Your task to perform on an android device: Open eBay Image 0: 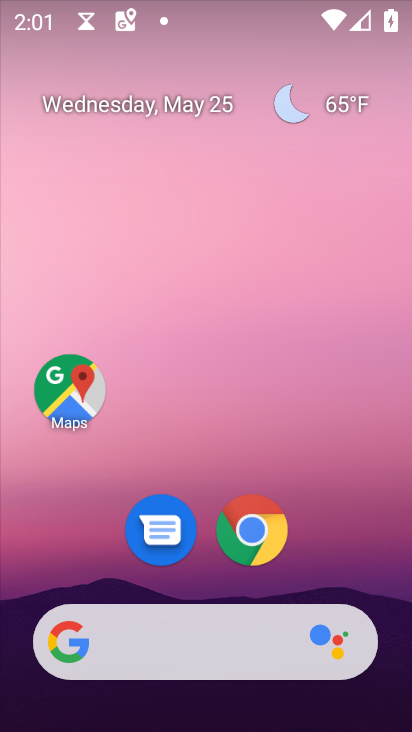
Step 0: click (267, 535)
Your task to perform on an android device: Open eBay Image 1: 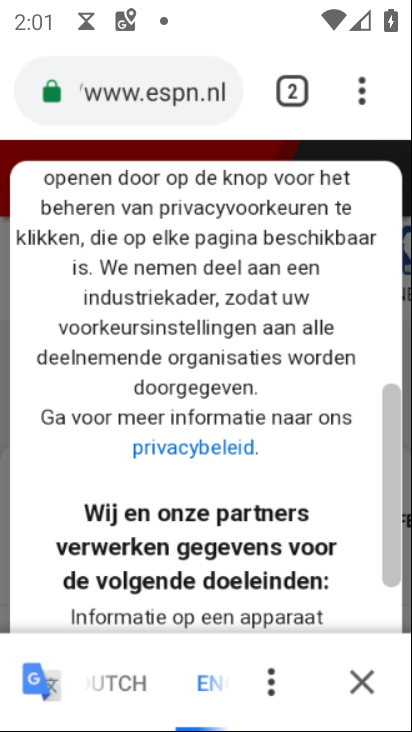
Step 1: click (261, 516)
Your task to perform on an android device: Open eBay Image 2: 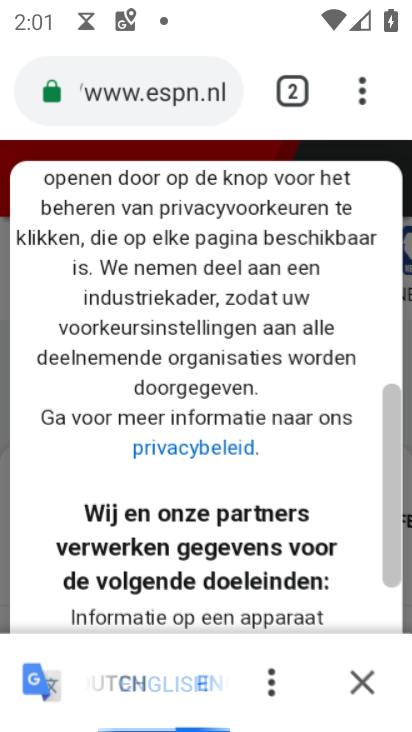
Step 2: click (361, 93)
Your task to perform on an android device: Open eBay Image 3: 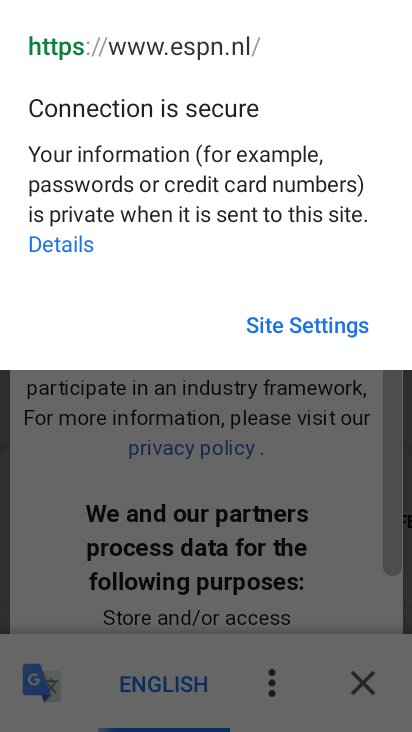
Step 3: click (291, 319)
Your task to perform on an android device: Open eBay Image 4: 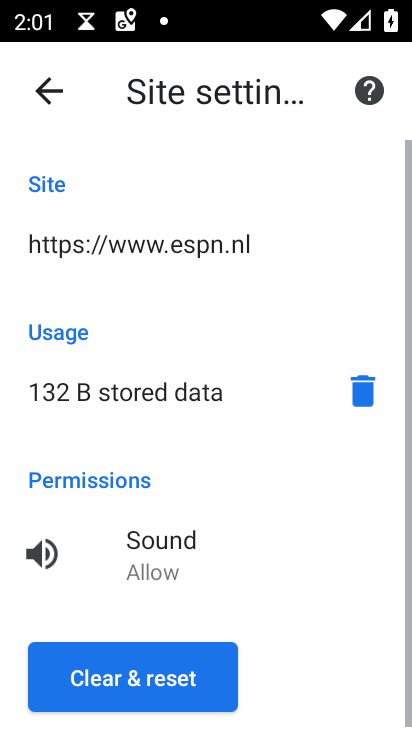
Step 4: press back button
Your task to perform on an android device: Open eBay Image 5: 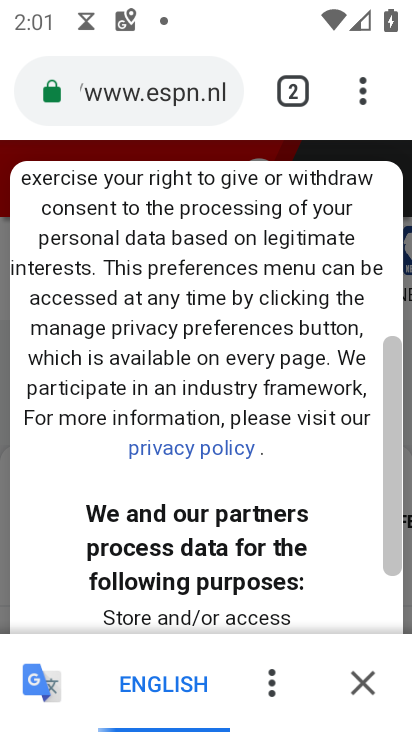
Step 5: press back button
Your task to perform on an android device: Open eBay Image 6: 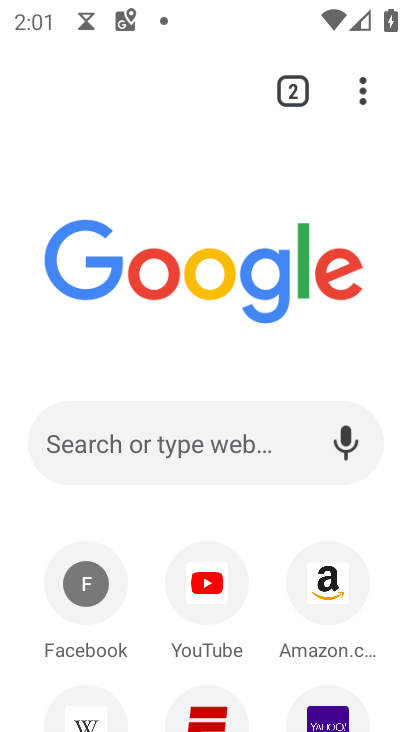
Step 6: click (363, 88)
Your task to perform on an android device: Open eBay Image 7: 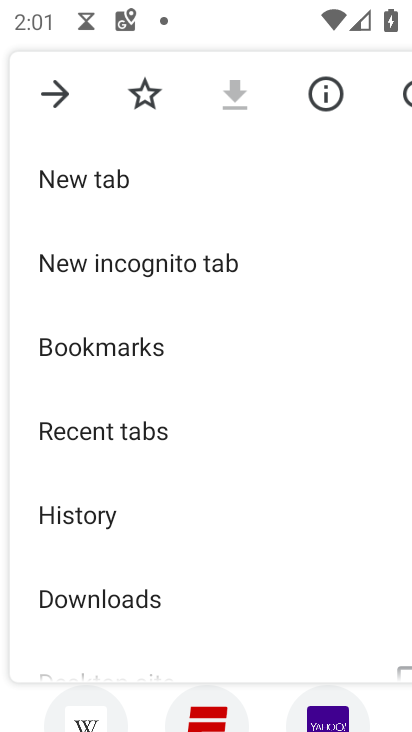
Step 7: click (80, 170)
Your task to perform on an android device: Open eBay Image 8: 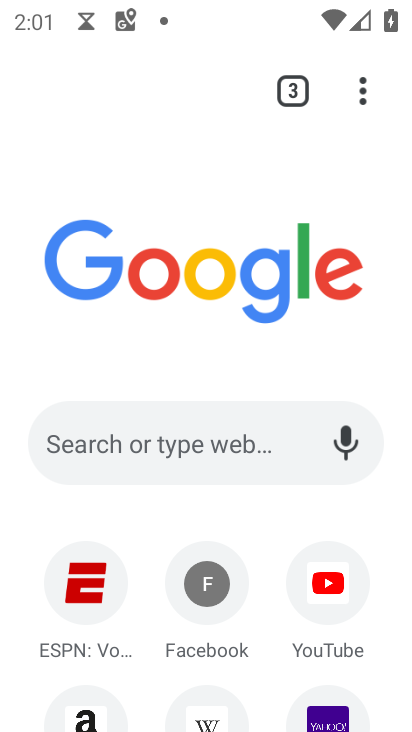
Step 8: drag from (242, 626) to (298, 369)
Your task to perform on an android device: Open eBay Image 9: 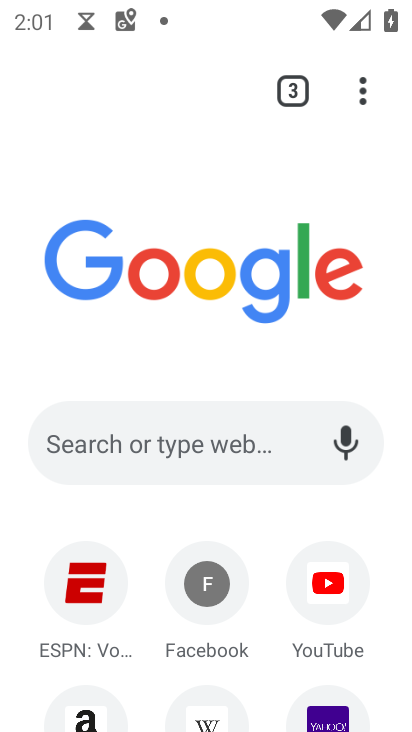
Step 9: click (171, 446)
Your task to perform on an android device: Open eBay Image 10: 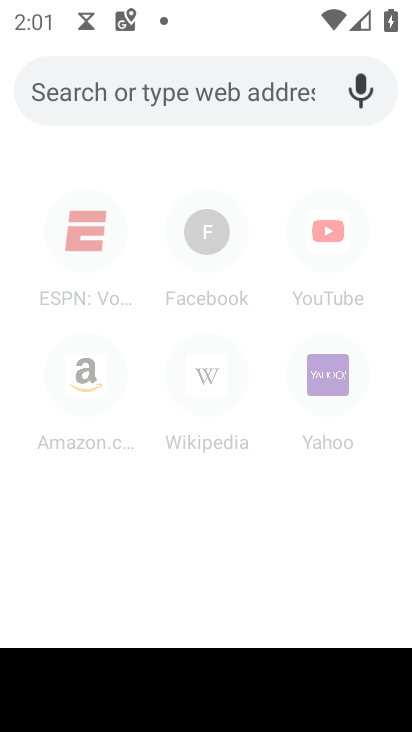
Step 10: type " eBay"
Your task to perform on an android device: Open eBay Image 11: 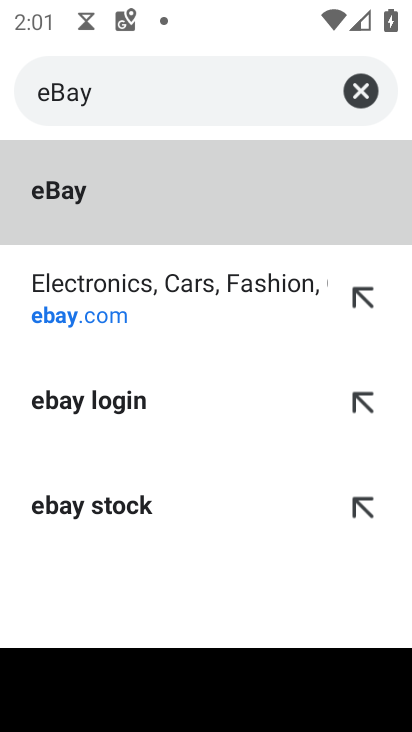
Step 11: click (150, 210)
Your task to perform on an android device: Open eBay Image 12: 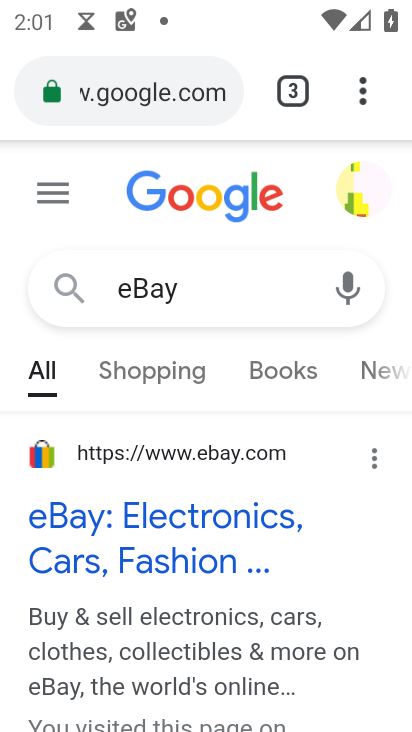
Step 12: task complete